Your task to perform on an android device: Search for seafood restaurants on Google Maps Image 0: 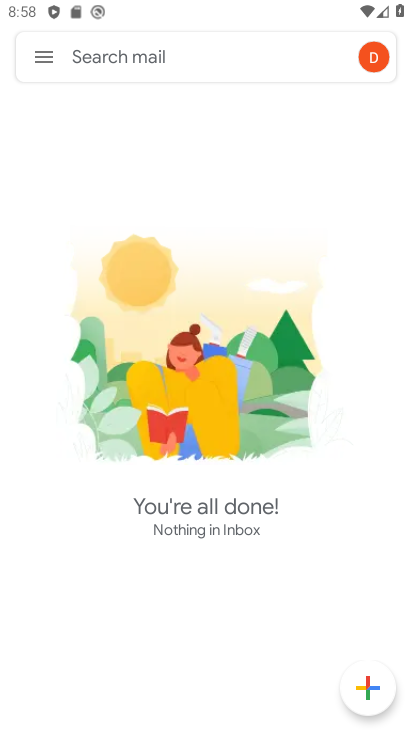
Step 0: press home button
Your task to perform on an android device: Search for seafood restaurants on Google Maps Image 1: 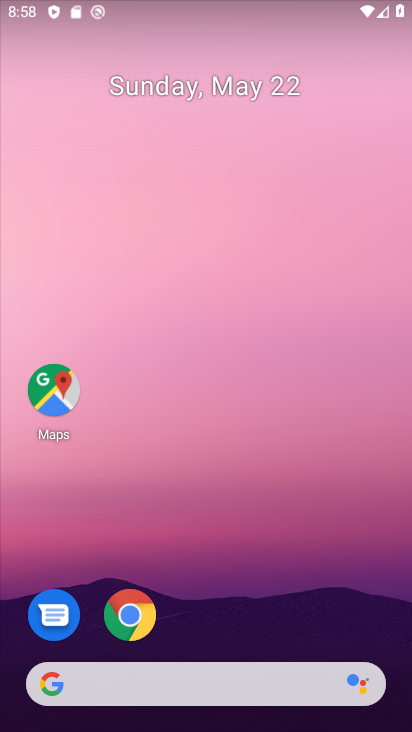
Step 1: click (238, 361)
Your task to perform on an android device: Search for seafood restaurants on Google Maps Image 2: 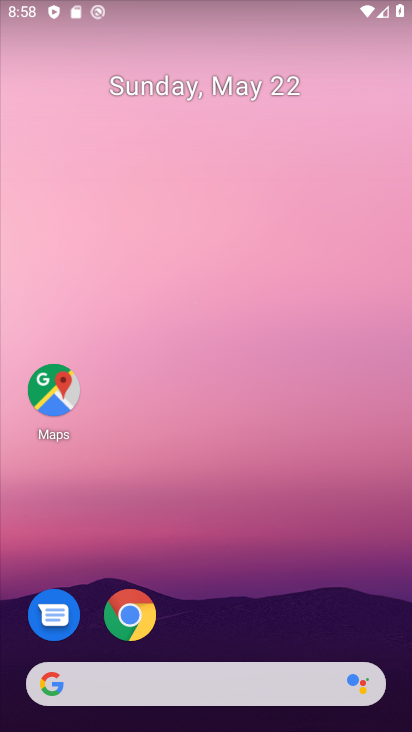
Step 2: drag from (213, 620) to (257, 135)
Your task to perform on an android device: Search for seafood restaurants on Google Maps Image 3: 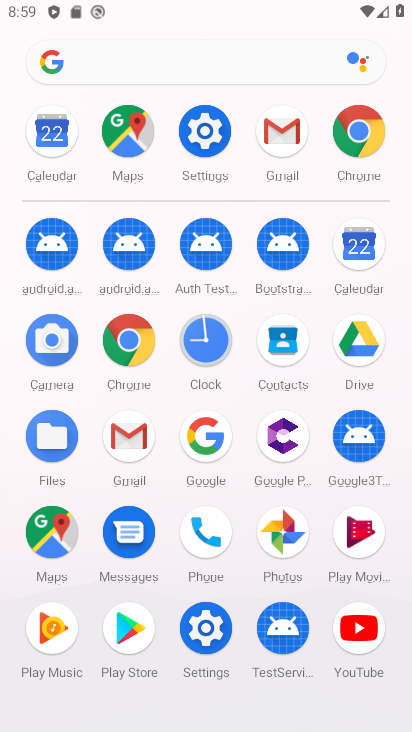
Step 3: drag from (163, 587) to (194, 295)
Your task to perform on an android device: Search for seafood restaurants on Google Maps Image 4: 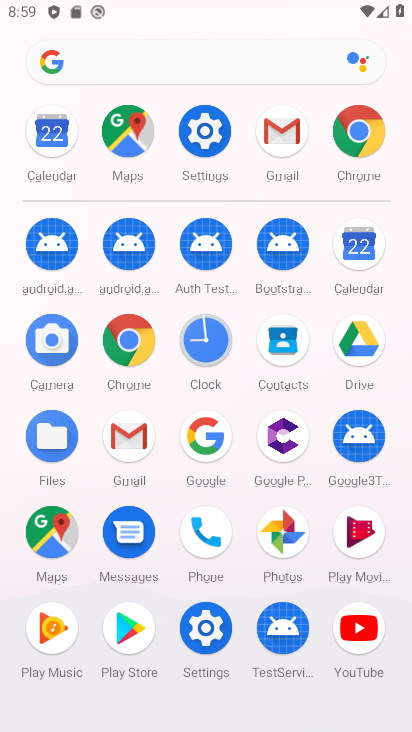
Step 4: click (122, 120)
Your task to perform on an android device: Search for seafood restaurants on Google Maps Image 5: 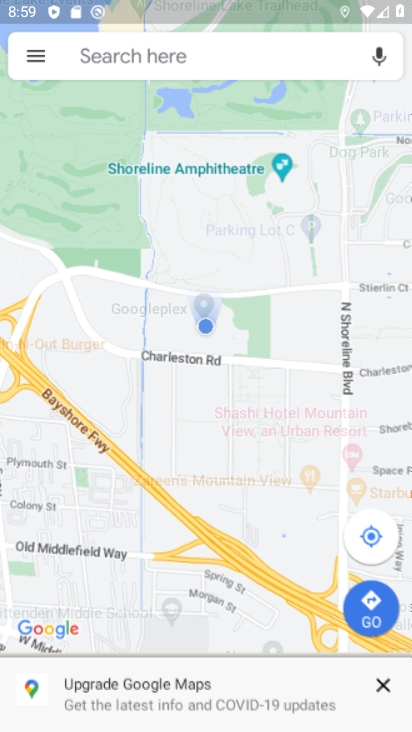
Step 5: click (183, 57)
Your task to perform on an android device: Search for seafood restaurants on Google Maps Image 6: 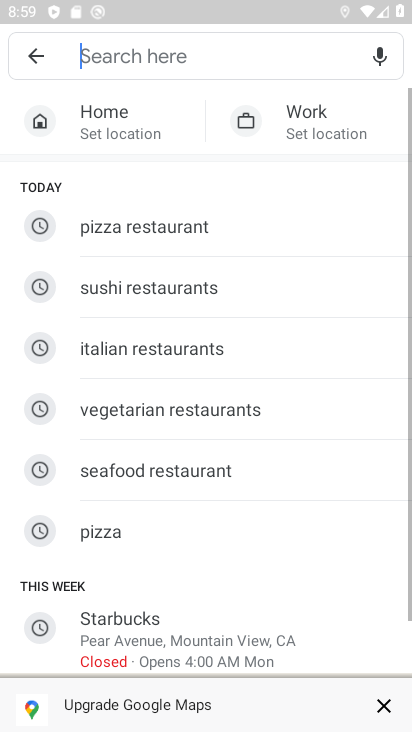
Step 6: click (186, 58)
Your task to perform on an android device: Search for seafood restaurants on Google Maps Image 7: 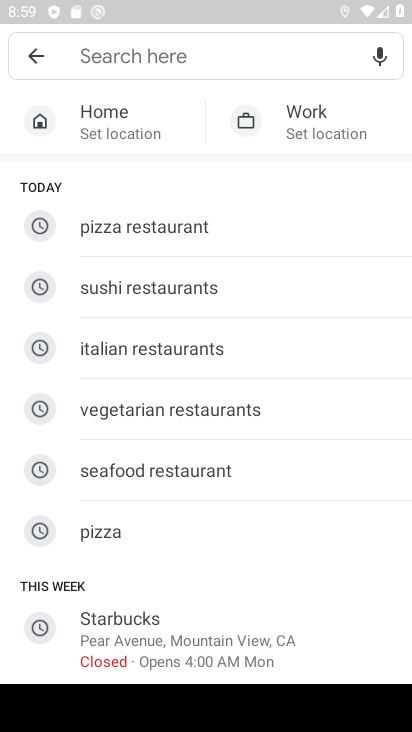
Step 7: click (134, 471)
Your task to perform on an android device: Search for seafood restaurants on Google Maps Image 8: 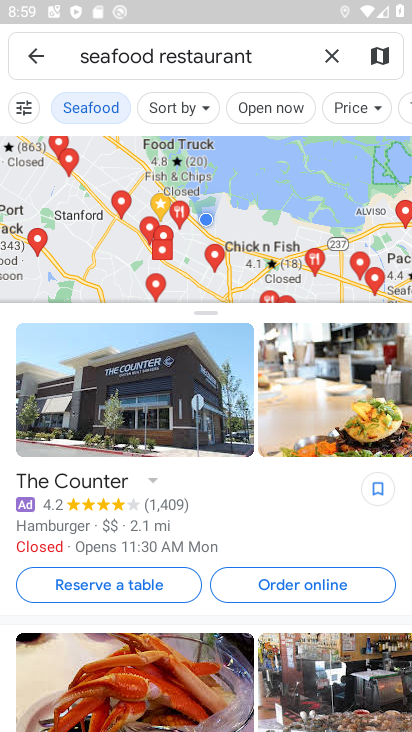
Step 8: task complete